Your task to perform on an android device: Open privacy settings Image 0: 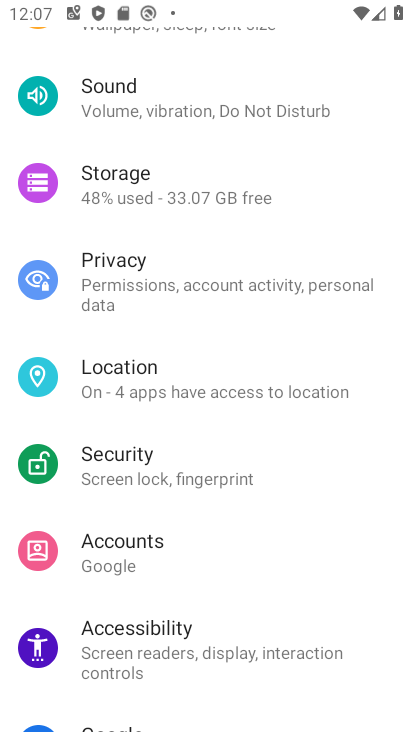
Step 0: click (235, 279)
Your task to perform on an android device: Open privacy settings Image 1: 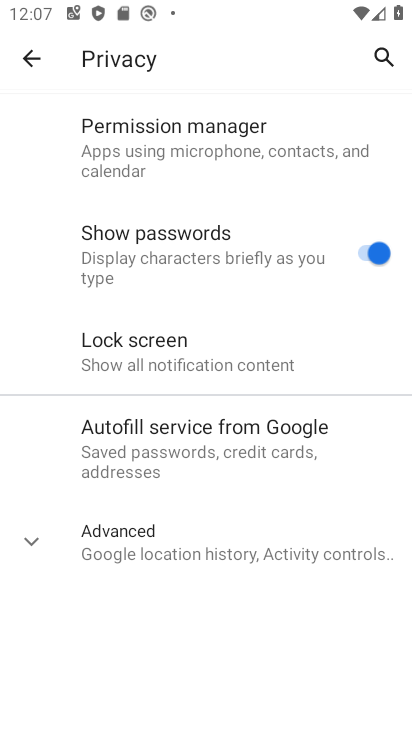
Step 1: task complete